Your task to perform on an android device: open wifi settings Image 0: 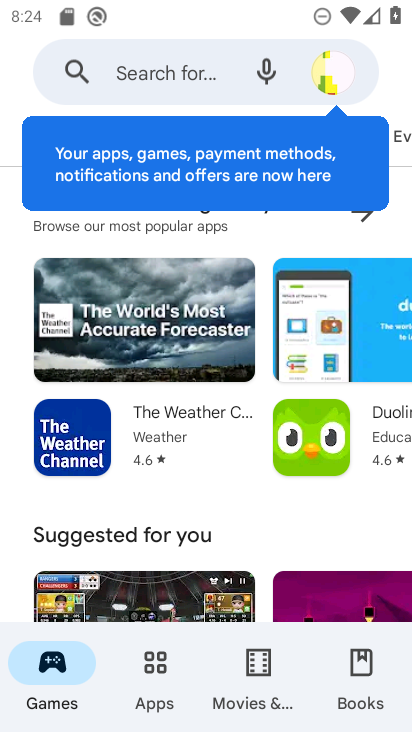
Step 0: press home button
Your task to perform on an android device: open wifi settings Image 1: 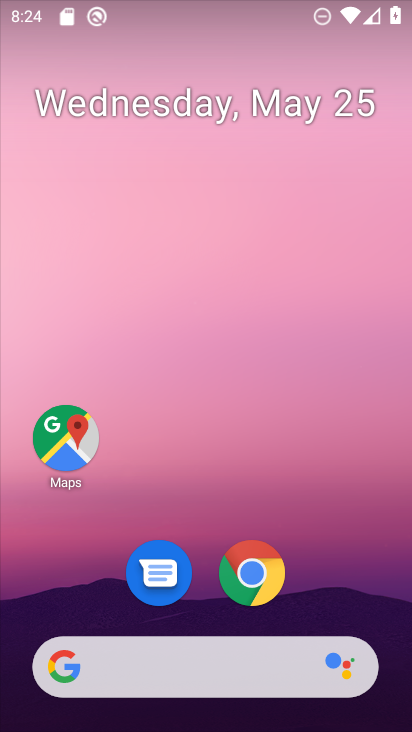
Step 1: drag from (397, 677) to (384, 276)
Your task to perform on an android device: open wifi settings Image 2: 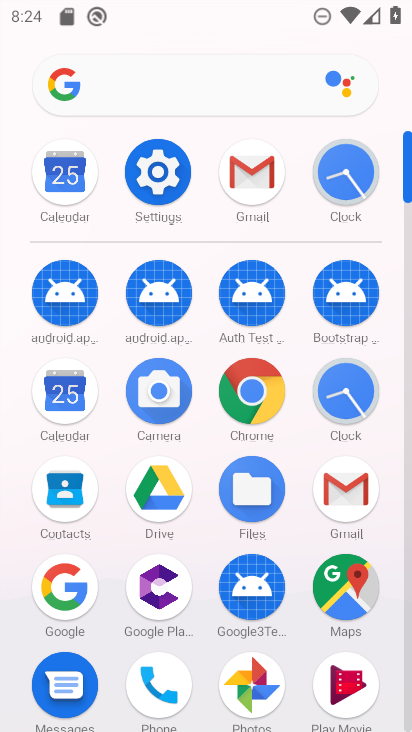
Step 2: click (164, 181)
Your task to perform on an android device: open wifi settings Image 3: 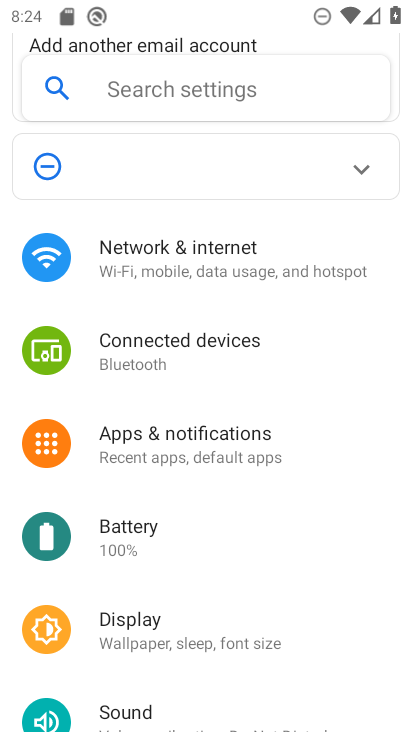
Step 3: click (166, 263)
Your task to perform on an android device: open wifi settings Image 4: 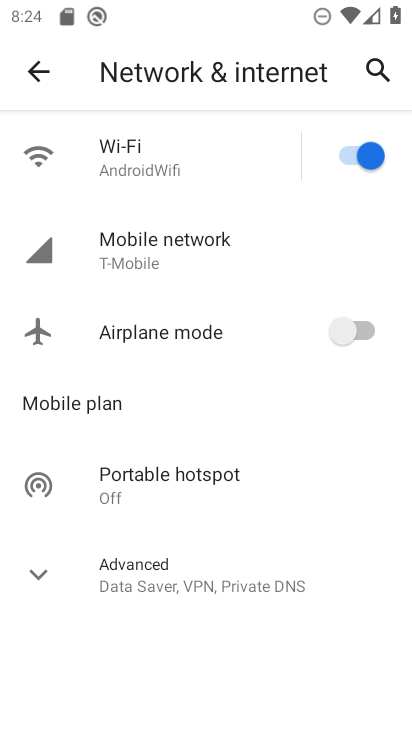
Step 4: click (187, 150)
Your task to perform on an android device: open wifi settings Image 5: 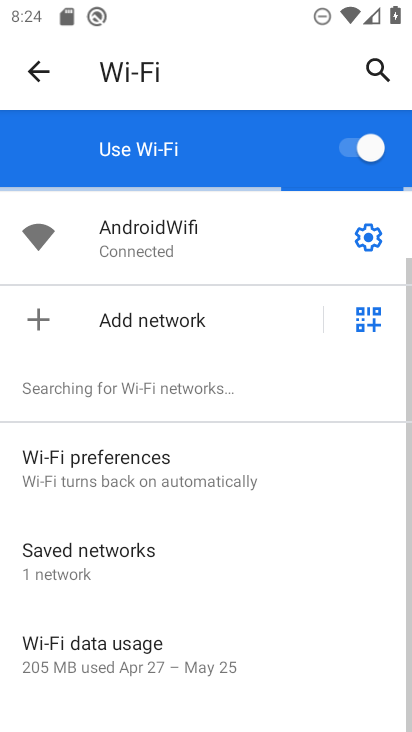
Step 5: click (361, 242)
Your task to perform on an android device: open wifi settings Image 6: 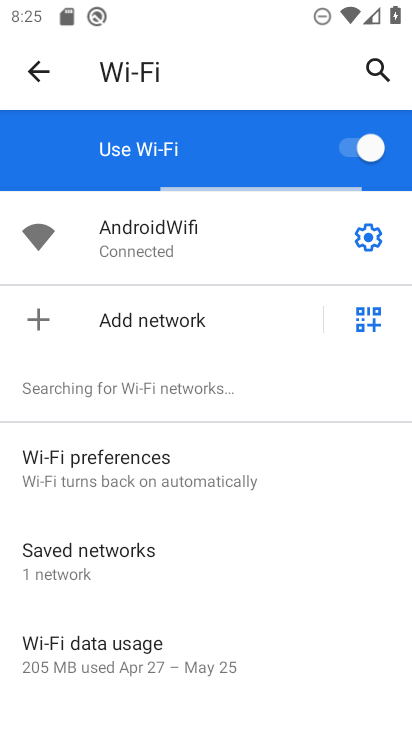
Step 6: click (368, 227)
Your task to perform on an android device: open wifi settings Image 7: 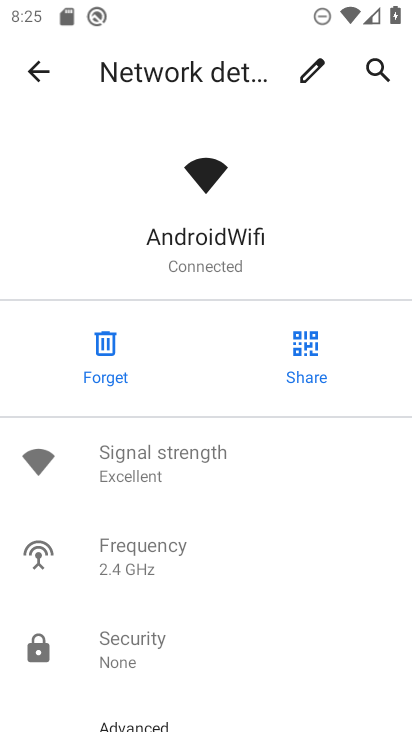
Step 7: task complete